Your task to perform on an android device: Open Chrome and go to settings Image 0: 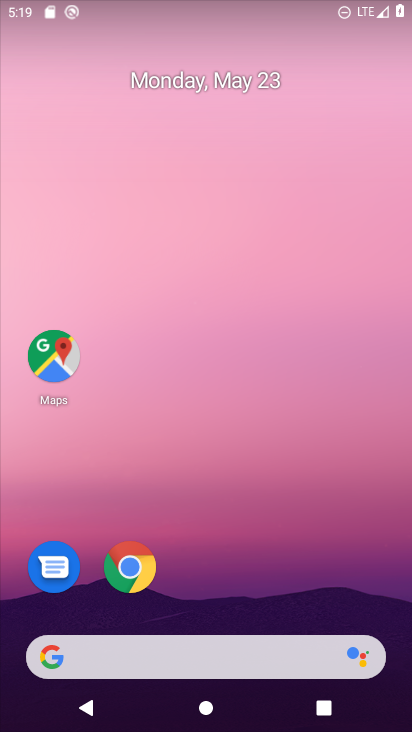
Step 0: click (129, 567)
Your task to perform on an android device: Open Chrome and go to settings Image 1: 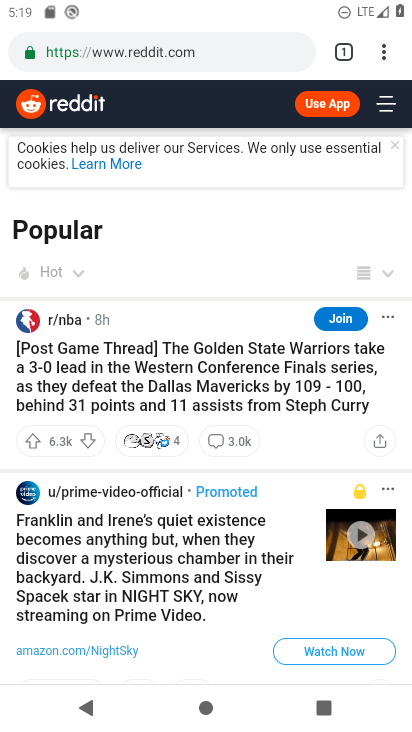
Step 1: click (386, 53)
Your task to perform on an android device: Open Chrome and go to settings Image 2: 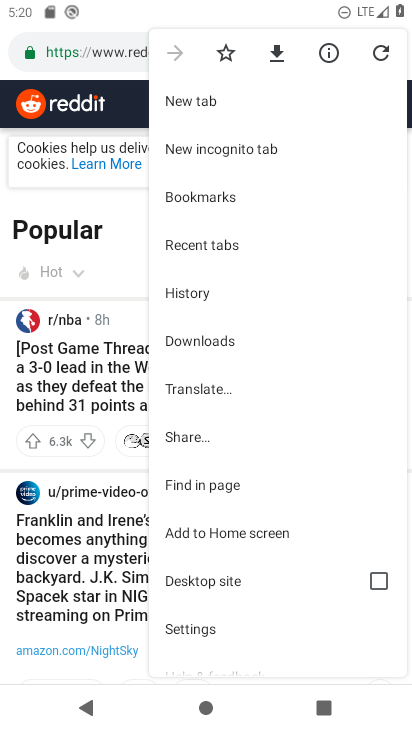
Step 2: click (193, 630)
Your task to perform on an android device: Open Chrome and go to settings Image 3: 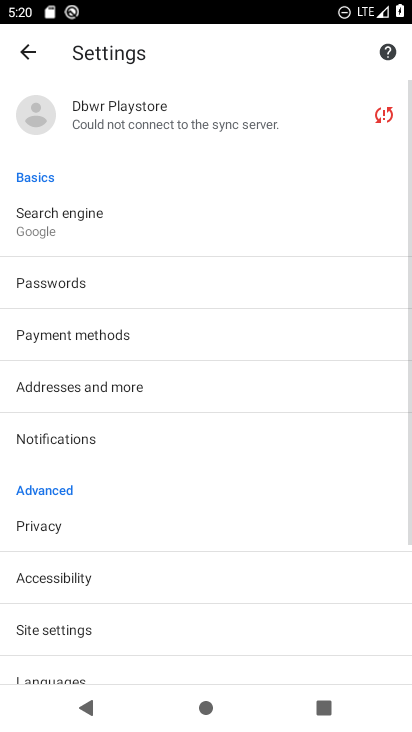
Step 3: task complete